Your task to perform on an android device: Open Google Chrome Image 0: 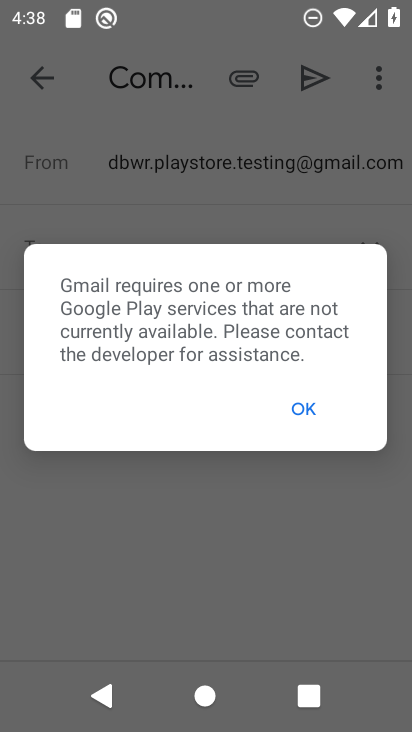
Step 0: press back button
Your task to perform on an android device: Open Google Chrome Image 1: 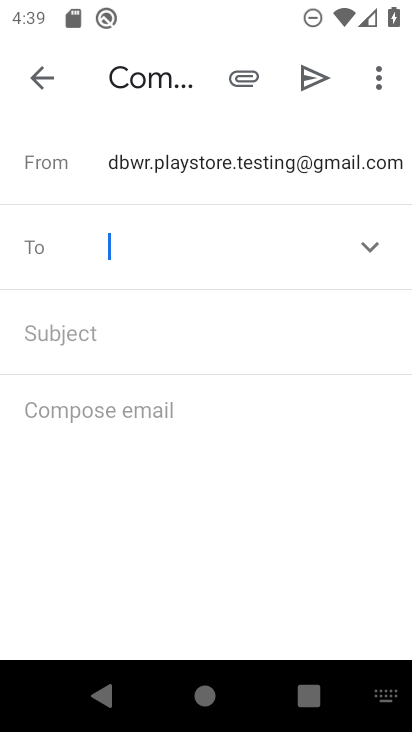
Step 1: press home button
Your task to perform on an android device: Open Google Chrome Image 2: 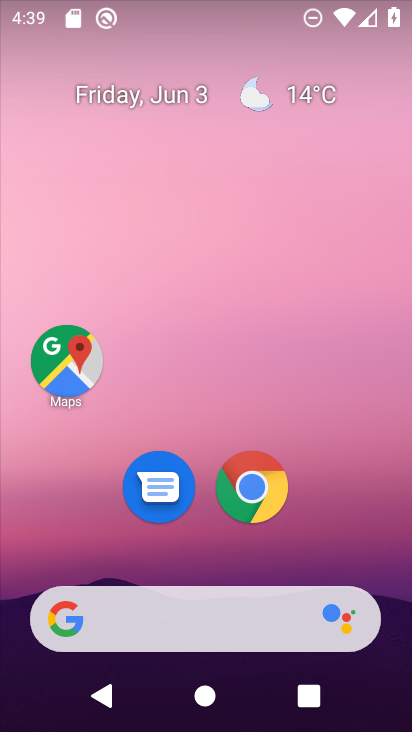
Step 2: click (270, 480)
Your task to perform on an android device: Open Google Chrome Image 3: 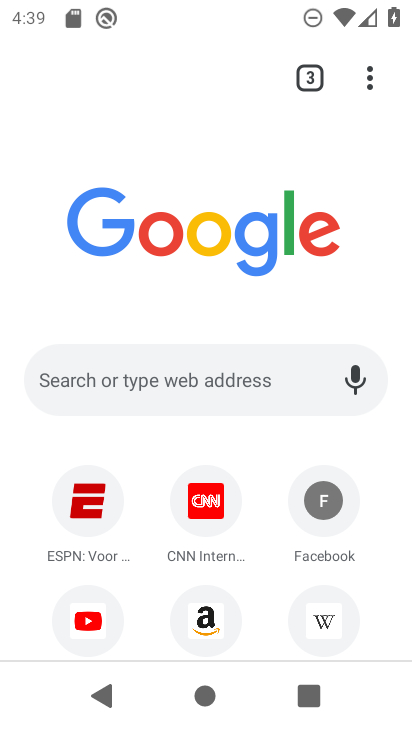
Step 3: task complete